Your task to perform on an android device: change text size in settings app Image 0: 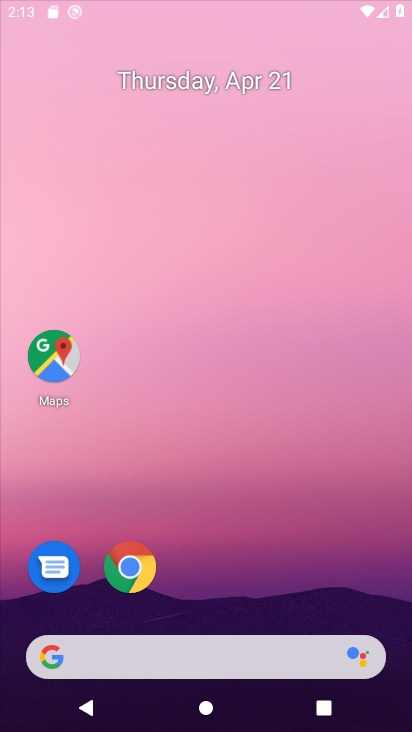
Step 0: drag from (339, 573) to (315, 59)
Your task to perform on an android device: change text size in settings app Image 1: 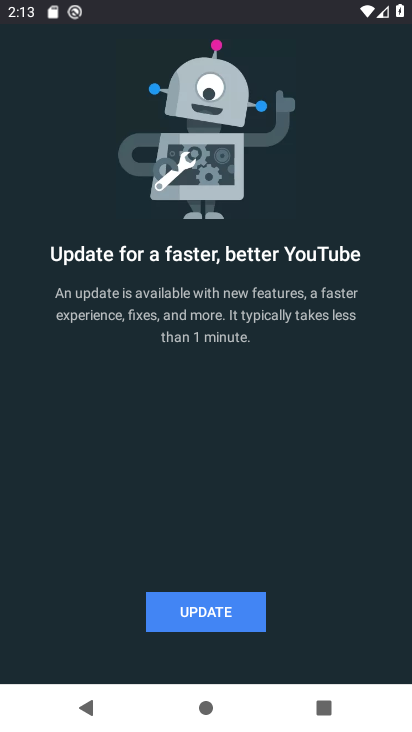
Step 1: press back button
Your task to perform on an android device: change text size in settings app Image 2: 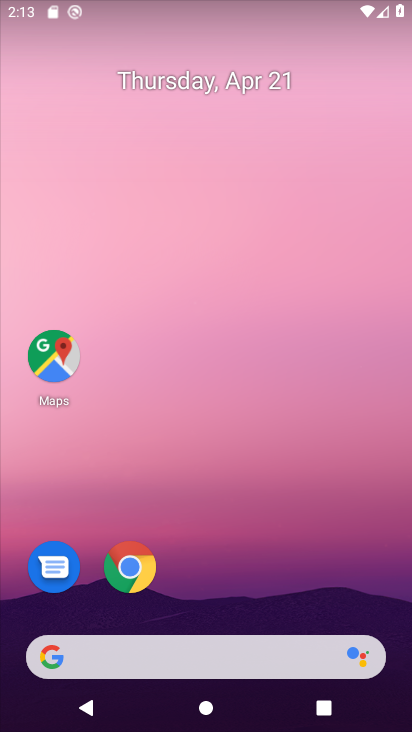
Step 2: drag from (292, 580) to (281, 86)
Your task to perform on an android device: change text size in settings app Image 3: 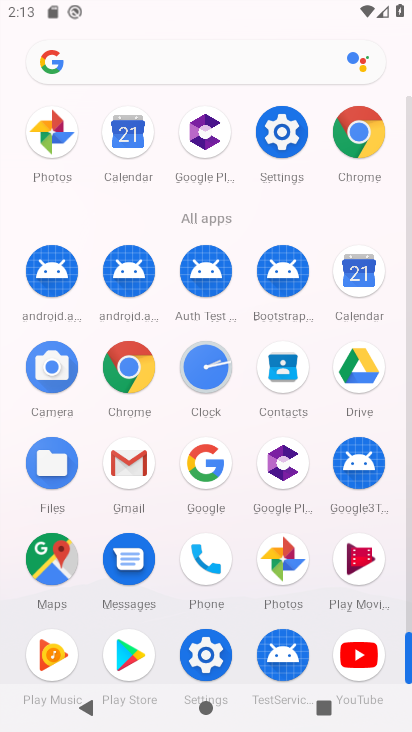
Step 3: drag from (15, 487) to (15, 320)
Your task to perform on an android device: change text size in settings app Image 4: 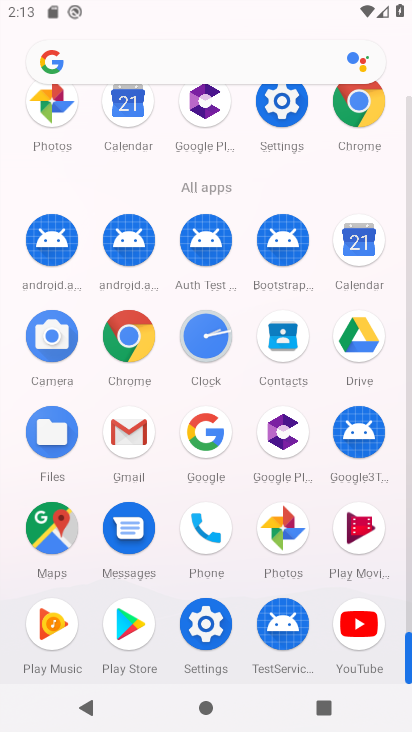
Step 4: click (206, 619)
Your task to perform on an android device: change text size in settings app Image 5: 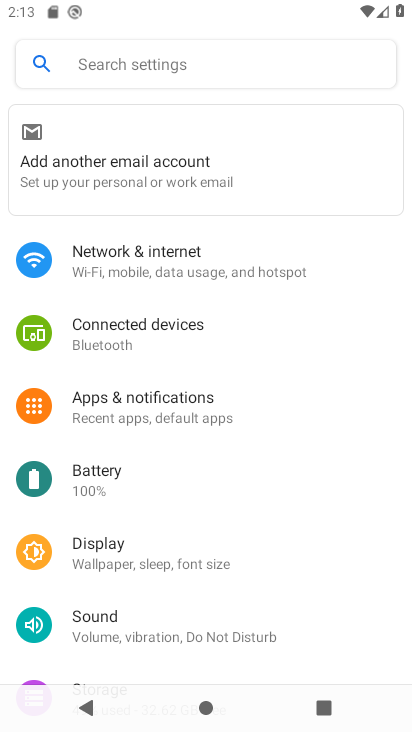
Step 5: click (163, 547)
Your task to perform on an android device: change text size in settings app Image 6: 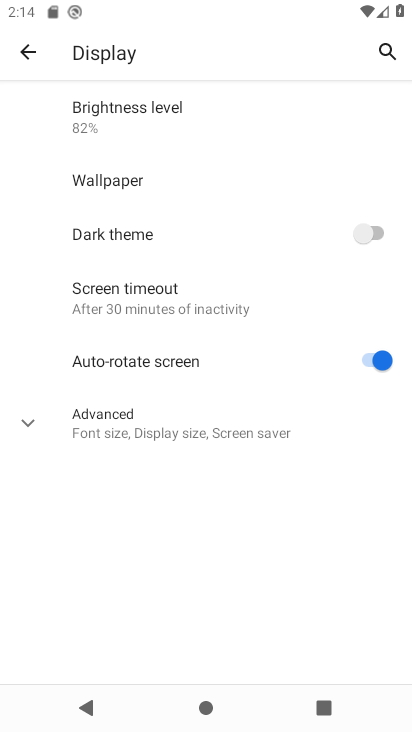
Step 6: click (22, 415)
Your task to perform on an android device: change text size in settings app Image 7: 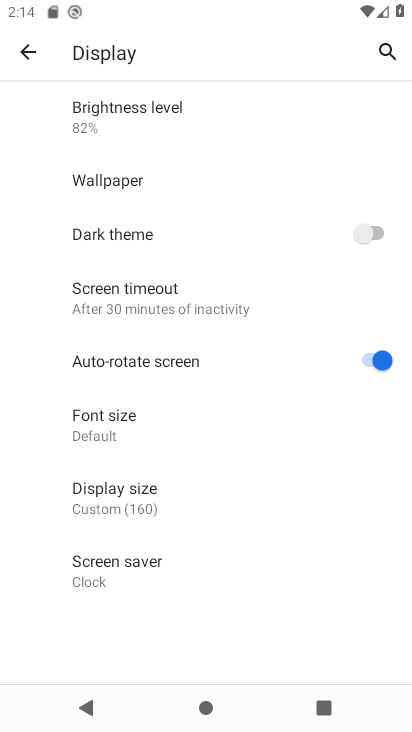
Step 7: click (126, 421)
Your task to perform on an android device: change text size in settings app Image 8: 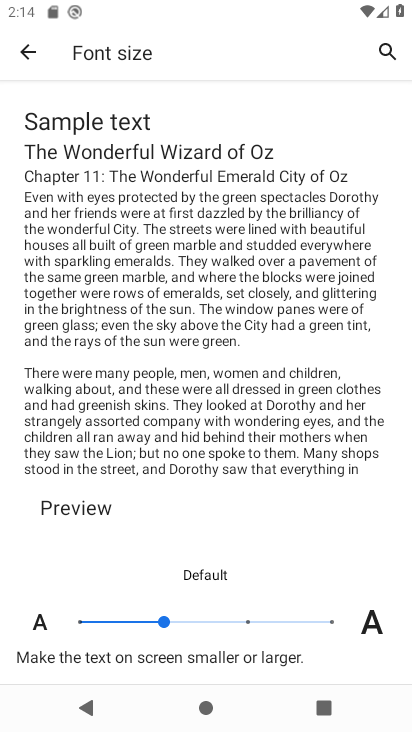
Step 8: click (334, 619)
Your task to perform on an android device: change text size in settings app Image 9: 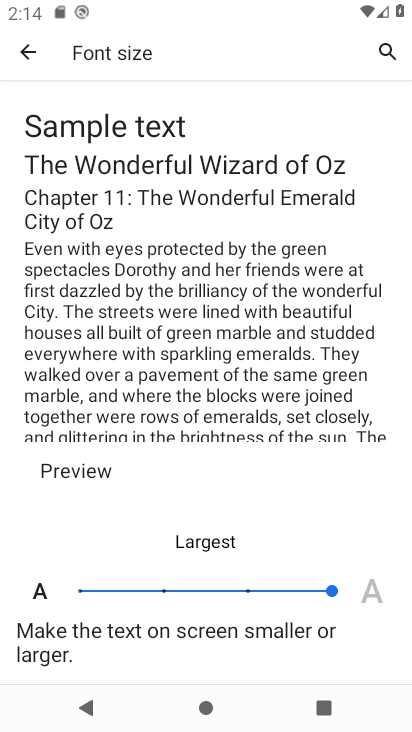
Step 9: click (28, 48)
Your task to perform on an android device: change text size in settings app Image 10: 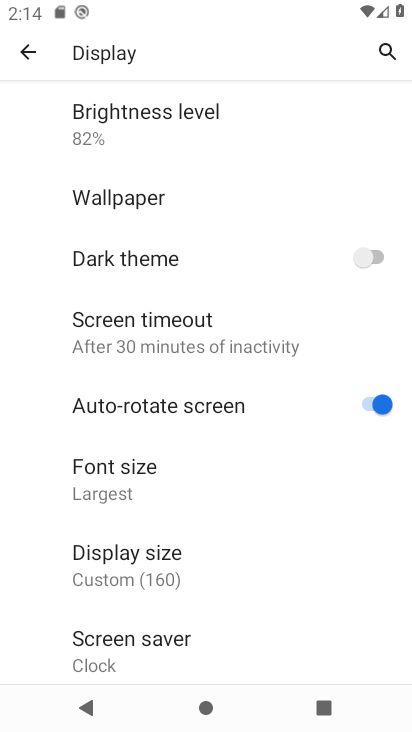
Step 10: task complete